Your task to perform on an android device: Open wifi settings Image 0: 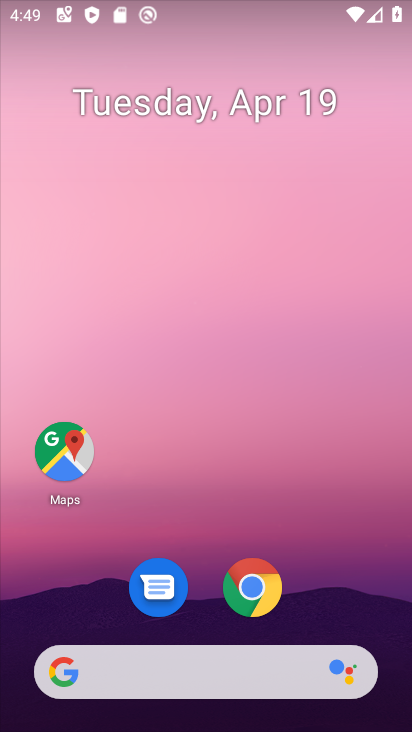
Step 0: drag from (352, 534) to (242, 59)
Your task to perform on an android device: Open wifi settings Image 1: 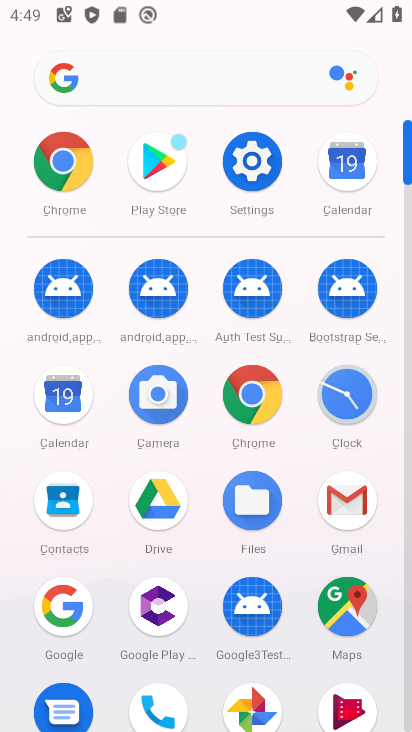
Step 1: drag from (16, 465) to (2, 122)
Your task to perform on an android device: Open wifi settings Image 2: 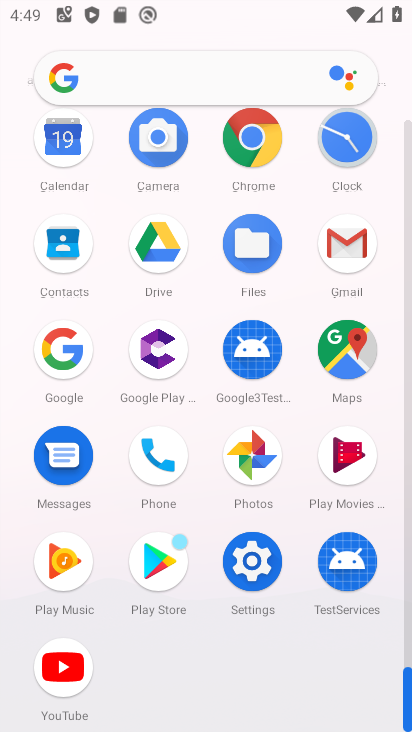
Step 2: click (257, 559)
Your task to perform on an android device: Open wifi settings Image 3: 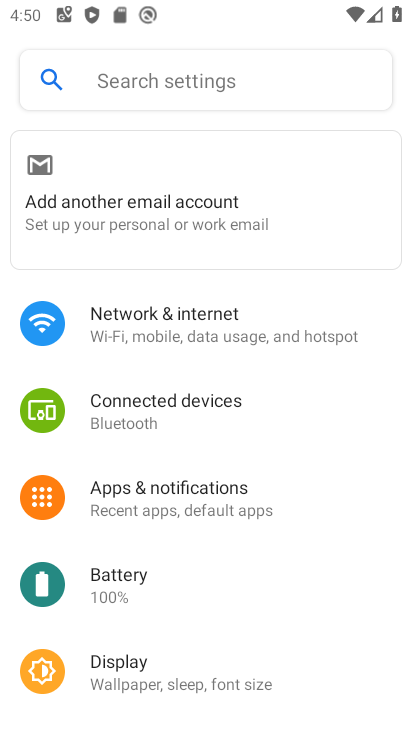
Step 3: click (189, 330)
Your task to perform on an android device: Open wifi settings Image 4: 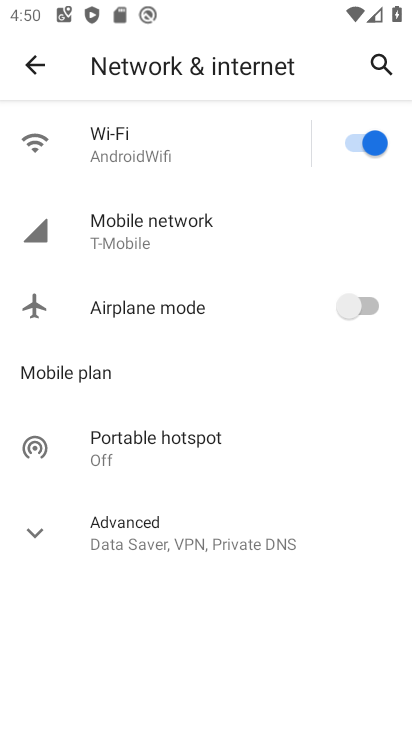
Step 4: click (152, 122)
Your task to perform on an android device: Open wifi settings Image 5: 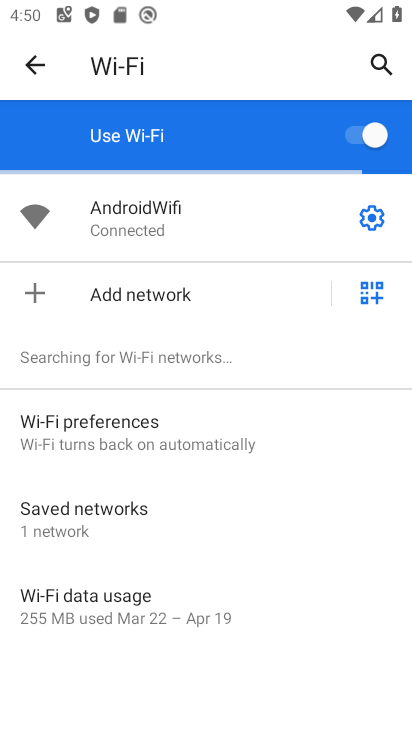
Step 5: task complete